Your task to perform on an android device: allow cookies in the chrome app Image 0: 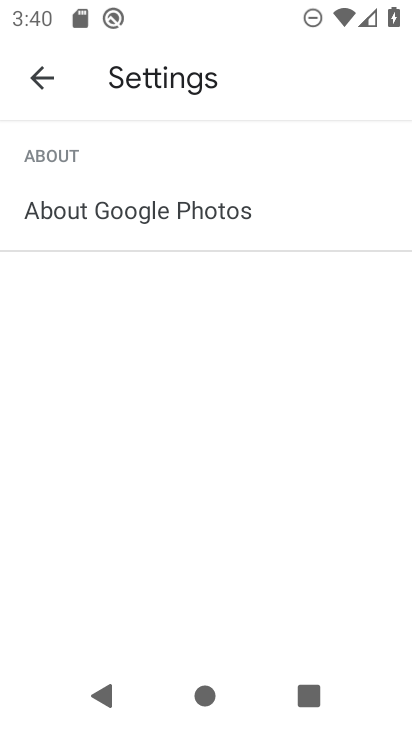
Step 0: press home button
Your task to perform on an android device: allow cookies in the chrome app Image 1: 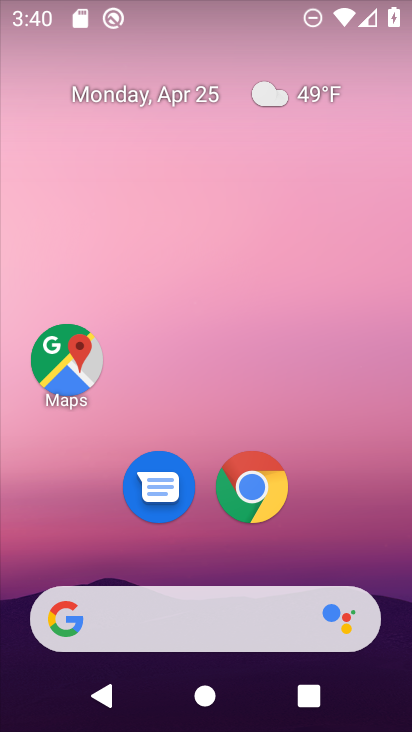
Step 1: click (254, 490)
Your task to perform on an android device: allow cookies in the chrome app Image 2: 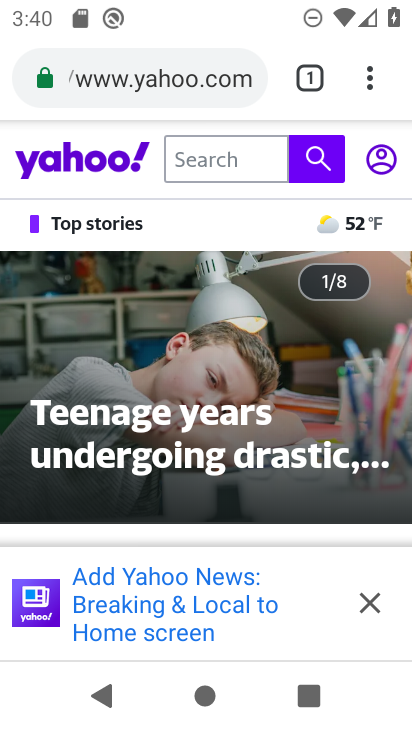
Step 2: drag from (369, 77) to (142, 548)
Your task to perform on an android device: allow cookies in the chrome app Image 3: 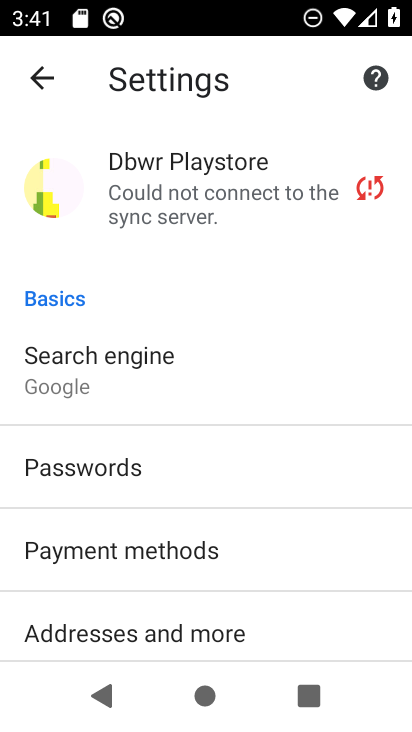
Step 3: drag from (248, 609) to (211, 280)
Your task to perform on an android device: allow cookies in the chrome app Image 4: 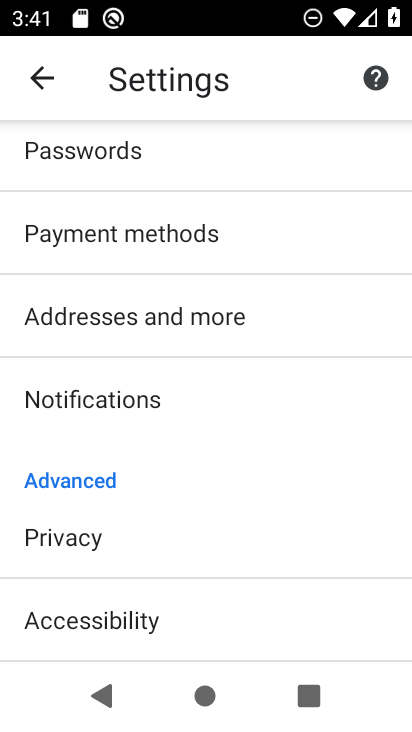
Step 4: drag from (223, 588) to (212, 297)
Your task to perform on an android device: allow cookies in the chrome app Image 5: 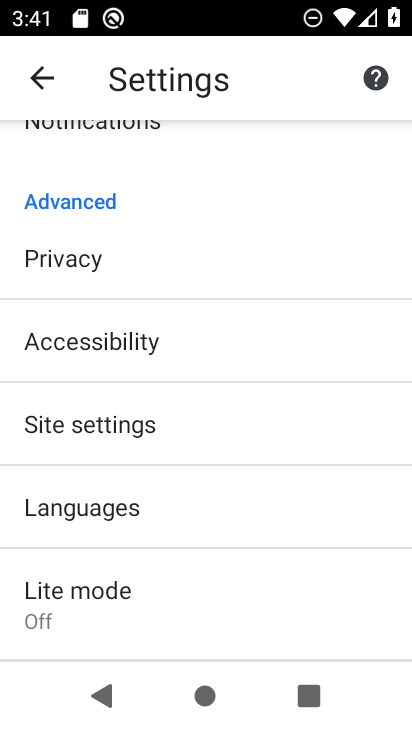
Step 5: click (71, 427)
Your task to perform on an android device: allow cookies in the chrome app Image 6: 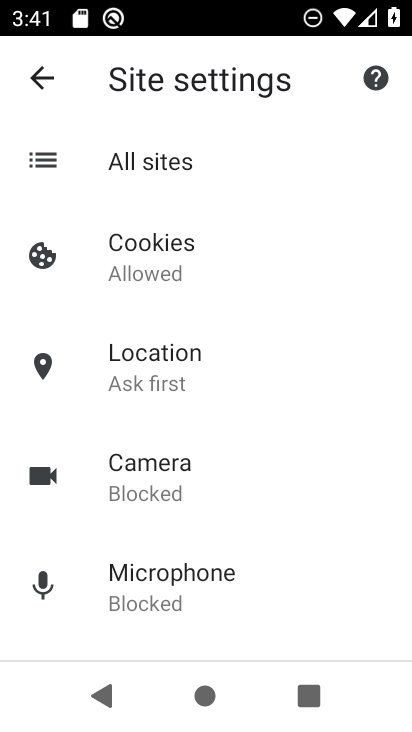
Step 6: click (155, 267)
Your task to perform on an android device: allow cookies in the chrome app Image 7: 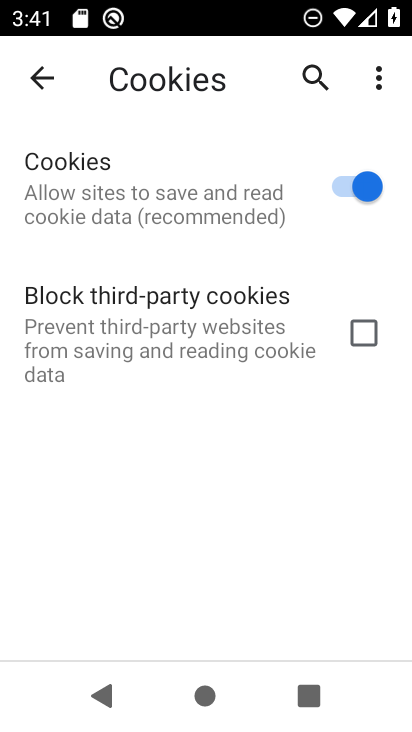
Step 7: task complete